Your task to perform on an android device: toggle data saver in the chrome app Image 0: 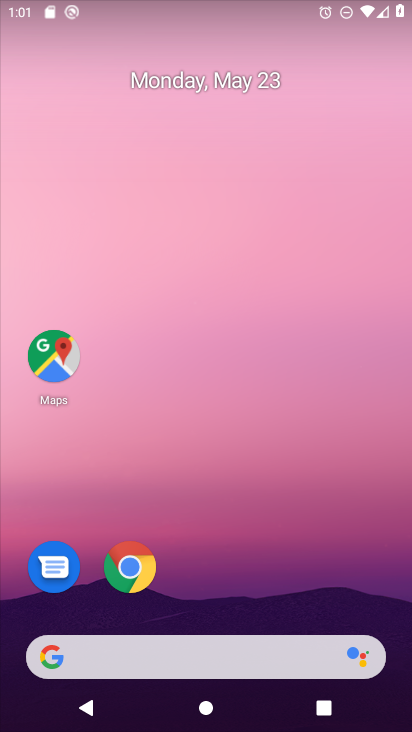
Step 0: click (126, 564)
Your task to perform on an android device: toggle data saver in the chrome app Image 1: 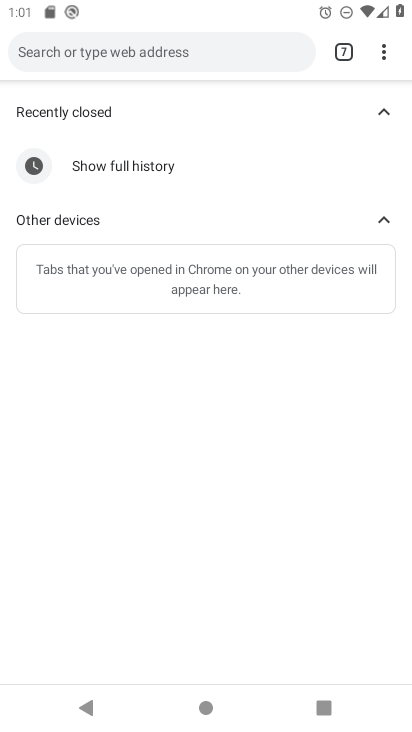
Step 1: click (389, 48)
Your task to perform on an android device: toggle data saver in the chrome app Image 2: 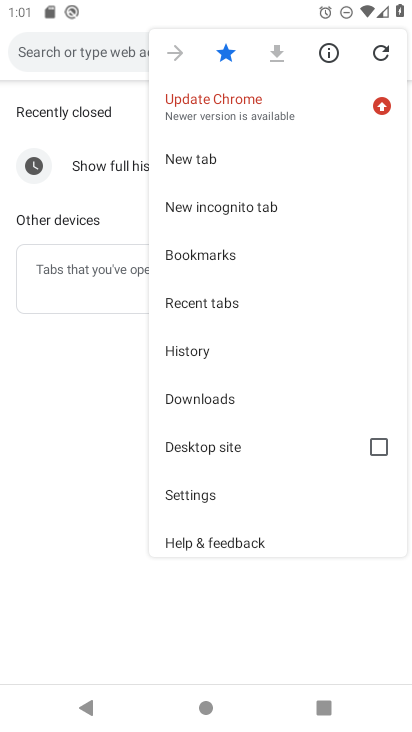
Step 2: click (220, 493)
Your task to perform on an android device: toggle data saver in the chrome app Image 3: 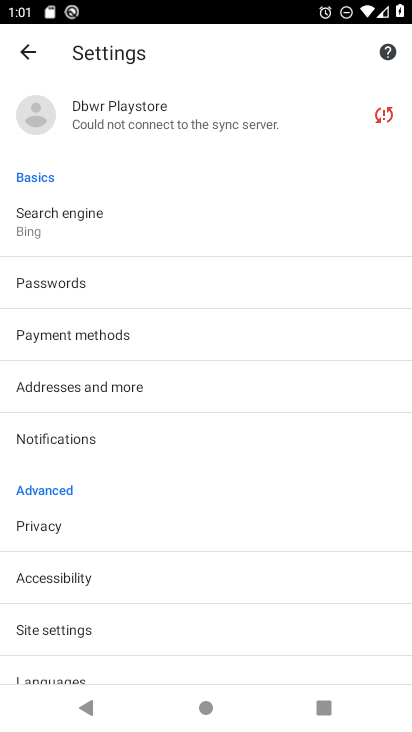
Step 3: drag from (41, 667) to (145, 242)
Your task to perform on an android device: toggle data saver in the chrome app Image 4: 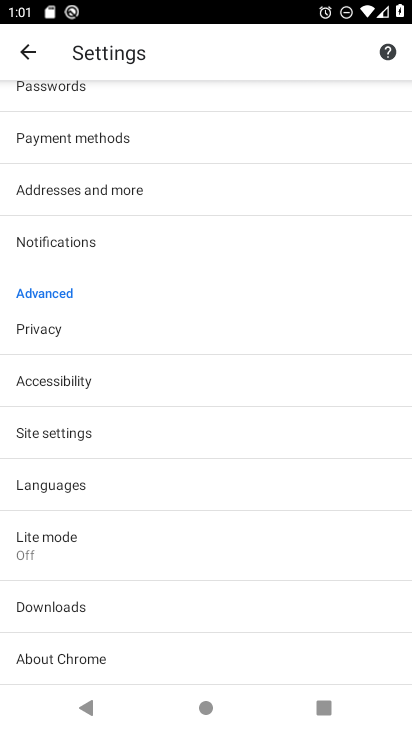
Step 4: click (41, 545)
Your task to perform on an android device: toggle data saver in the chrome app Image 5: 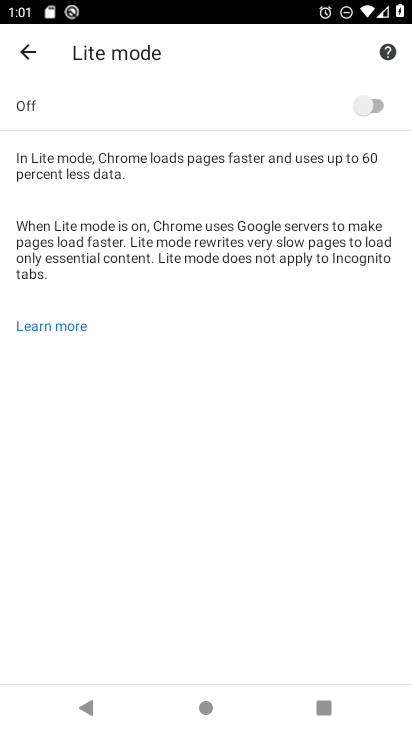
Step 5: click (385, 107)
Your task to perform on an android device: toggle data saver in the chrome app Image 6: 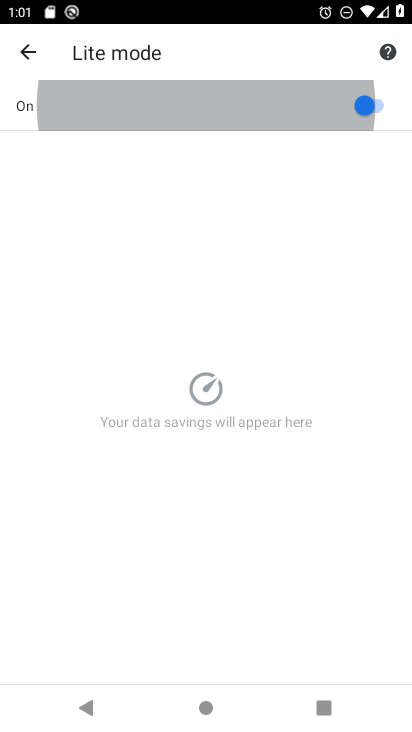
Step 6: click (385, 107)
Your task to perform on an android device: toggle data saver in the chrome app Image 7: 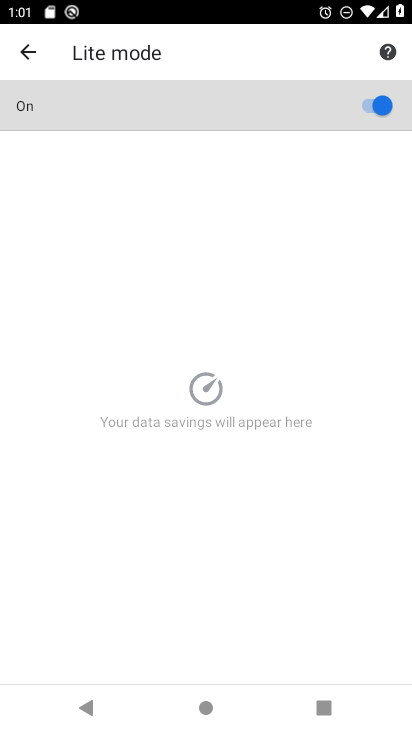
Step 7: click (385, 107)
Your task to perform on an android device: toggle data saver in the chrome app Image 8: 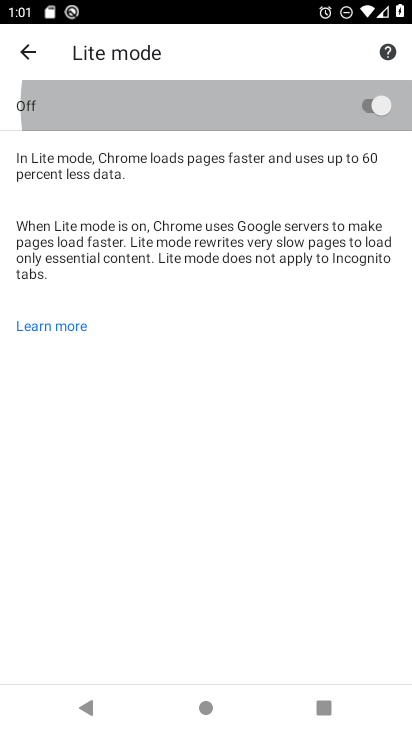
Step 8: click (385, 107)
Your task to perform on an android device: toggle data saver in the chrome app Image 9: 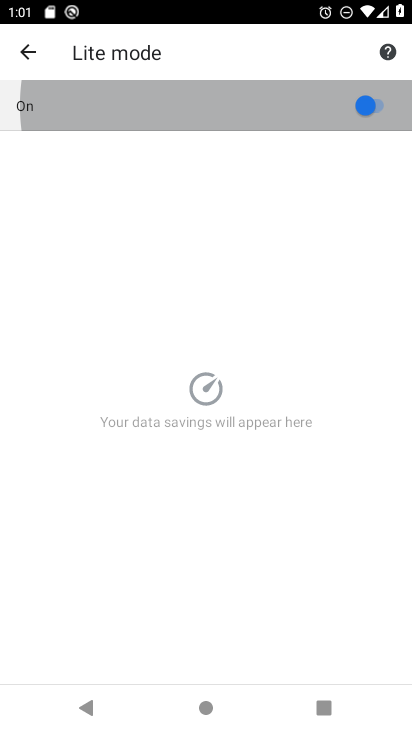
Step 9: click (385, 107)
Your task to perform on an android device: toggle data saver in the chrome app Image 10: 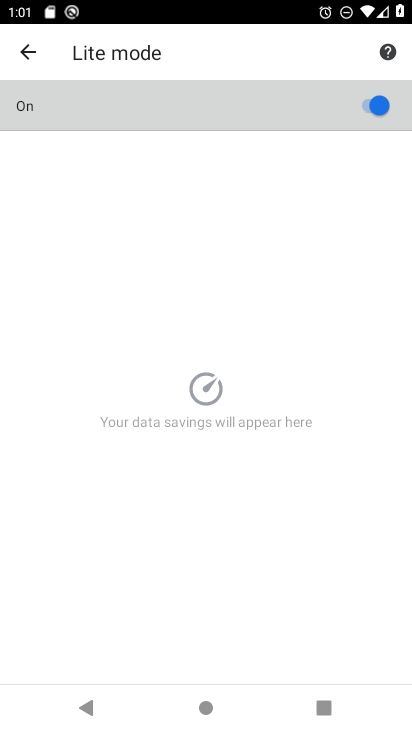
Step 10: click (385, 107)
Your task to perform on an android device: toggle data saver in the chrome app Image 11: 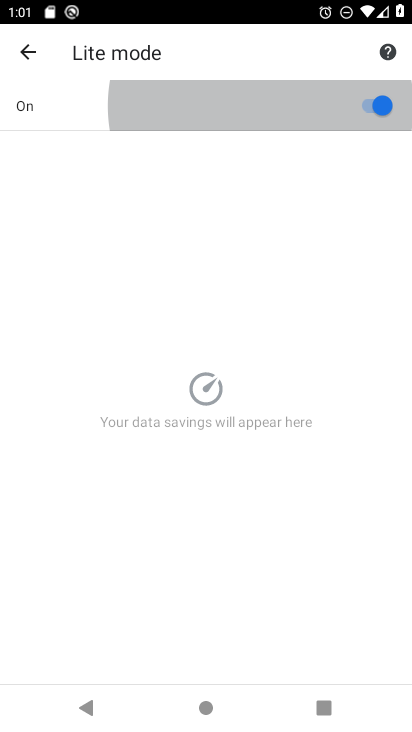
Step 11: click (385, 107)
Your task to perform on an android device: toggle data saver in the chrome app Image 12: 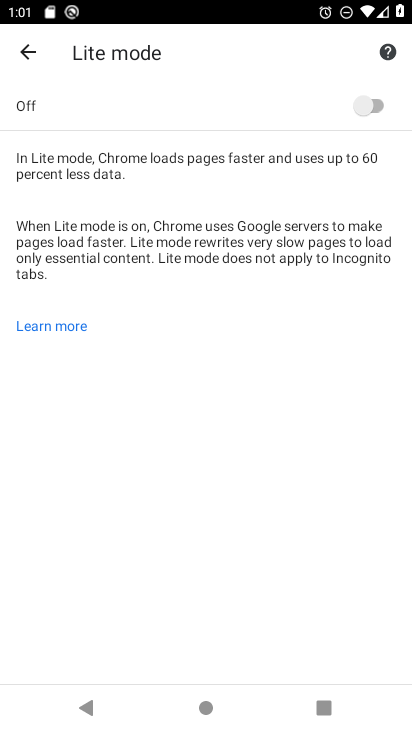
Step 12: task complete